Your task to perform on an android device: open sync settings in chrome Image 0: 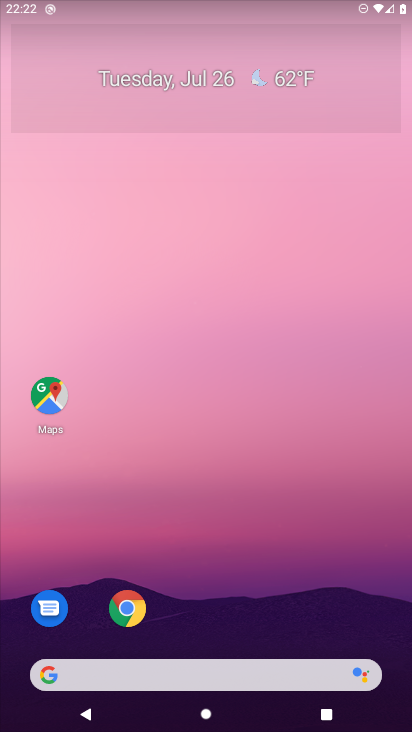
Step 0: click (129, 608)
Your task to perform on an android device: open sync settings in chrome Image 1: 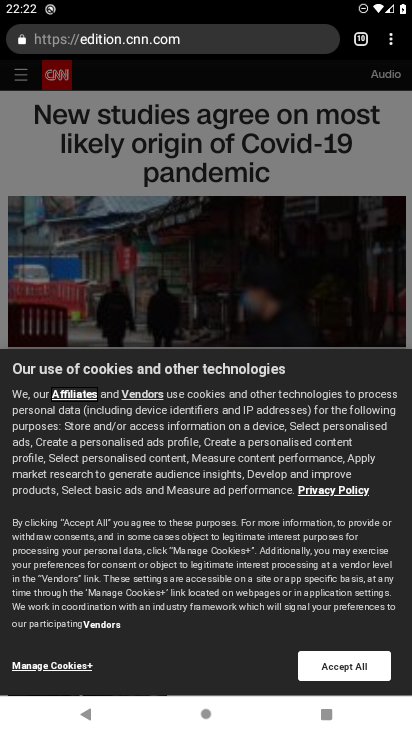
Step 1: click (394, 44)
Your task to perform on an android device: open sync settings in chrome Image 2: 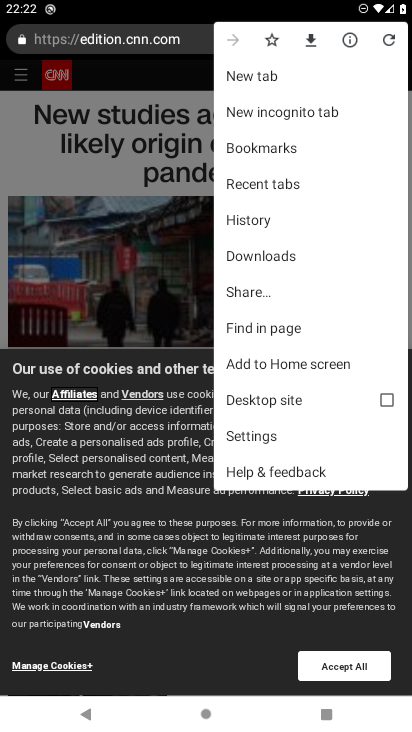
Step 2: click (242, 434)
Your task to perform on an android device: open sync settings in chrome Image 3: 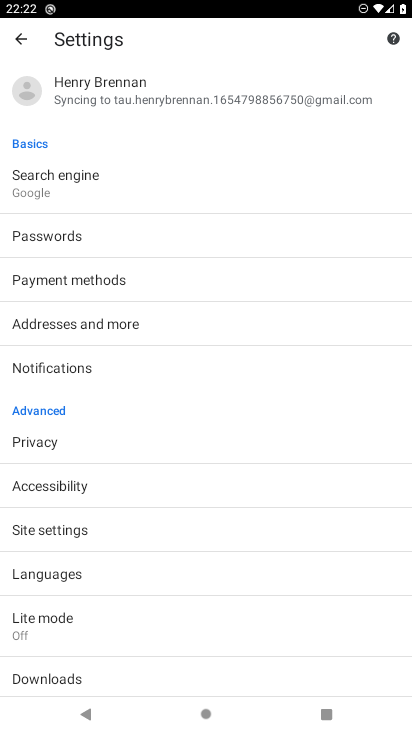
Step 3: click (43, 525)
Your task to perform on an android device: open sync settings in chrome Image 4: 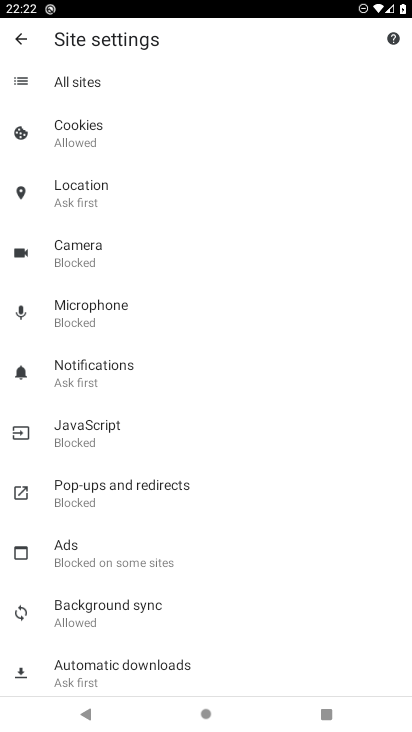
Step 4: click (103, 608)
Your task to perform on an android device: open sync settings in chrome Image 5: 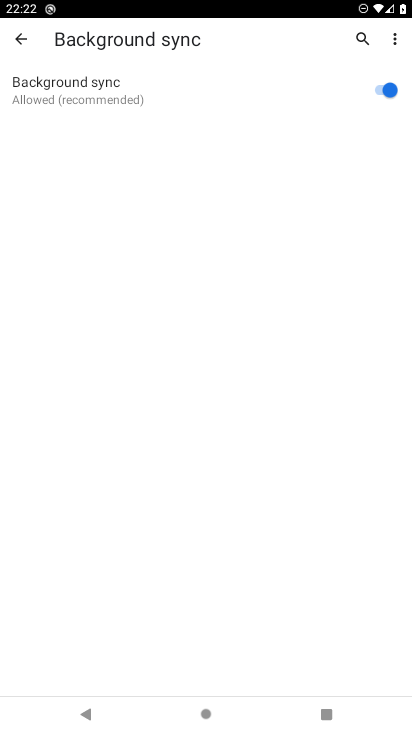
Step 5: task complete